Your task to perform on an android device: find photos in the google photos app Image 0: 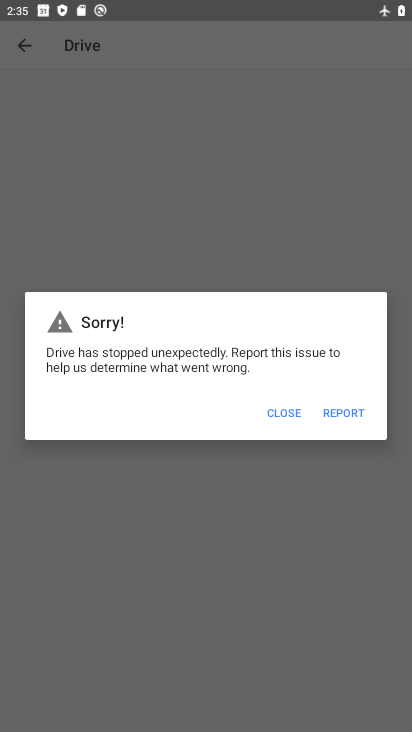
Step 0: press home button
Your task to perform on an android device: find photos in the google photos app Image 1: 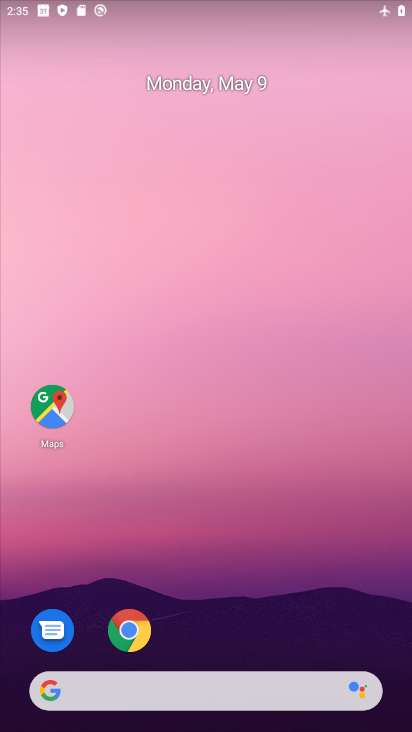
Step 1: drag from (286, 622) to (180, 246)
Your task to perform on an android device: find photos in the google photos app Image 2: 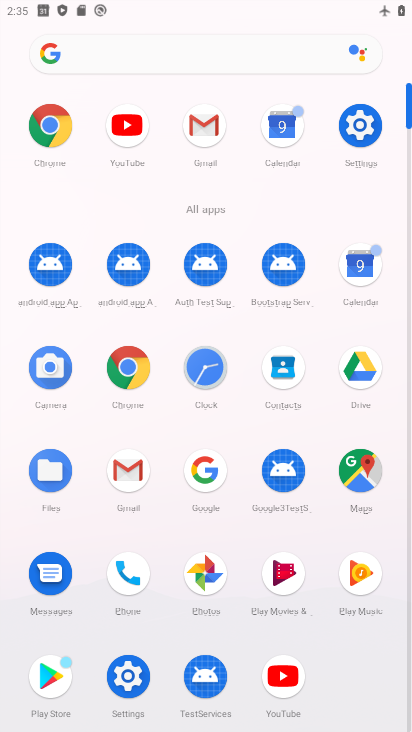
Step 2: click (218, 571)
Your task to perform on an android device: find photos in the google photos app Image 3: 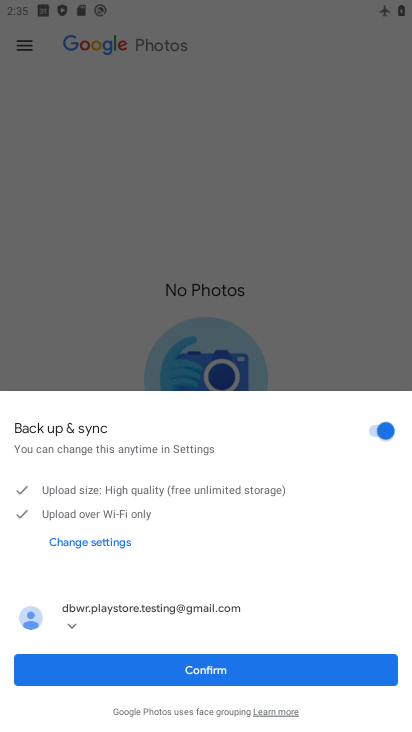
Step 3: click (276, 668)
Your task to perform on an android device: find photos in the google photos app Image 4: 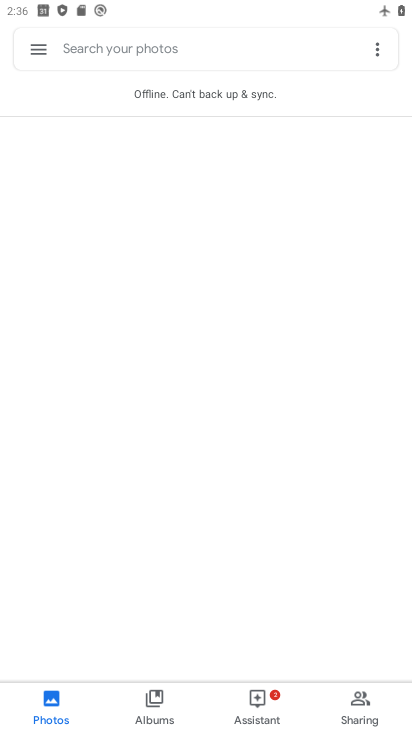
Step 4: task complete